Your task to perform on an android device: Open my contact list Image 0: 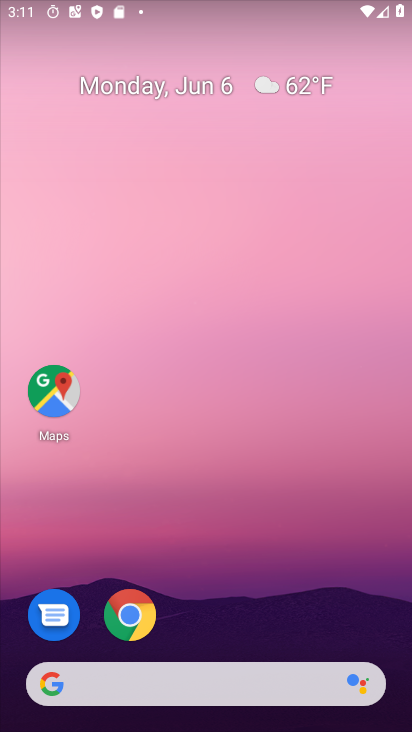
Step 0: drag from (226, 669) to (294, 12)
Your task to perform on an android device: Open my contact list Image 1: 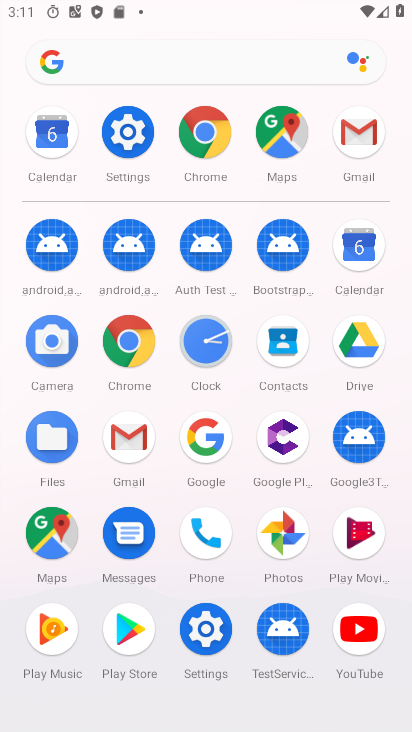
Step 1: click (284, 342)
Your task to perform on an android device: Open my contact list Image 2: 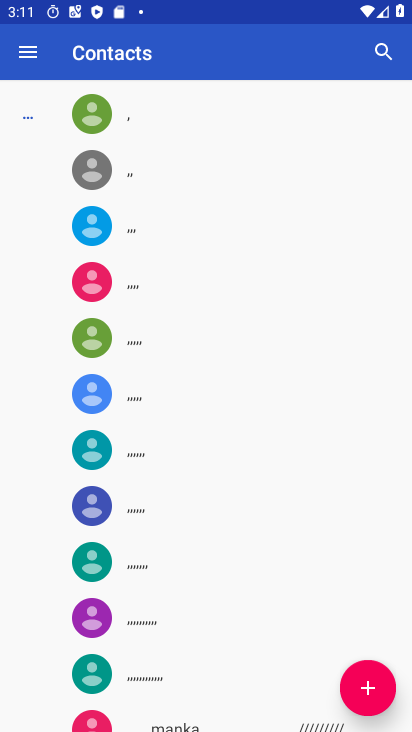
Step 2: task complete